Your task to perform on an android device: Open eBay Image 0: 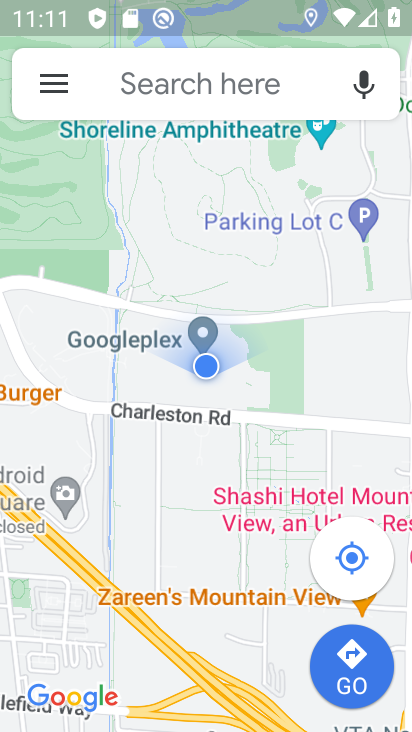
Step 0: press home button
Your task to perform on an android device: Open eBay Image 1: 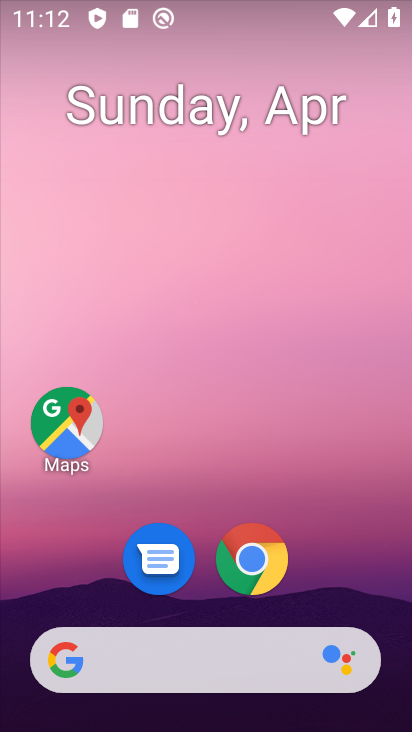
Step 1: click (267, 570)
Your task to perform on an android device: Open eBay Image 2: 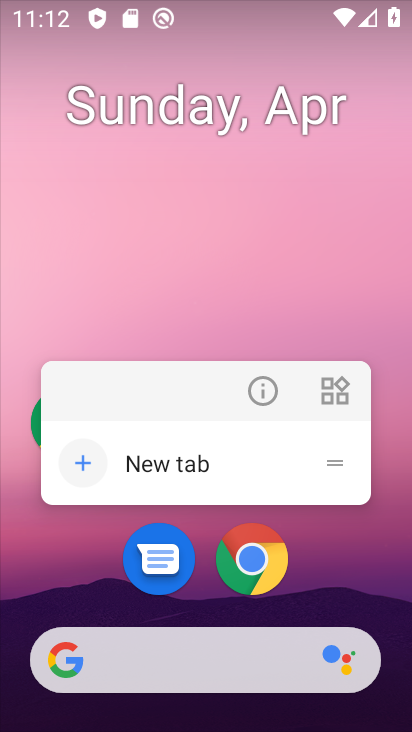
Step 2: click (375, 517)
Your task to perform on an android device: Open eBay Image 3: 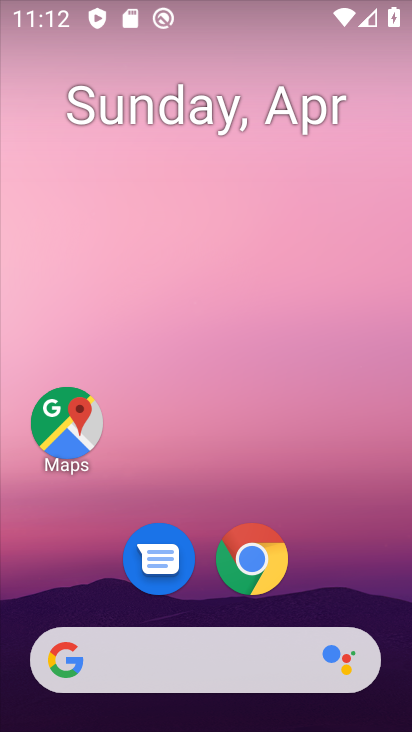
Step 3: click (249, 561)
Your task to perform on an android device: Open eBay Image 4: 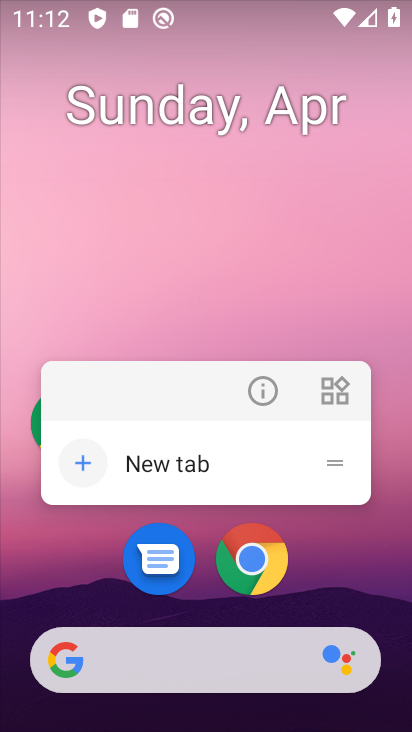
Step 4: click (284, 552)
Your task to perform on an android device: Open eBay Image 5: 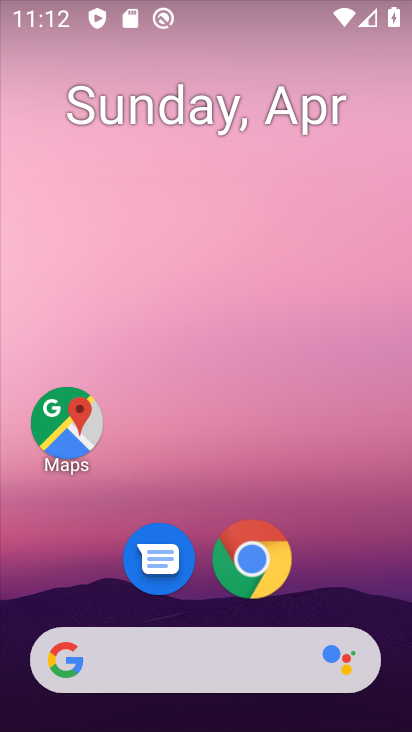
Step 5: click (284, 552)
Your task to perform on an android device: Open eBay Image 6: 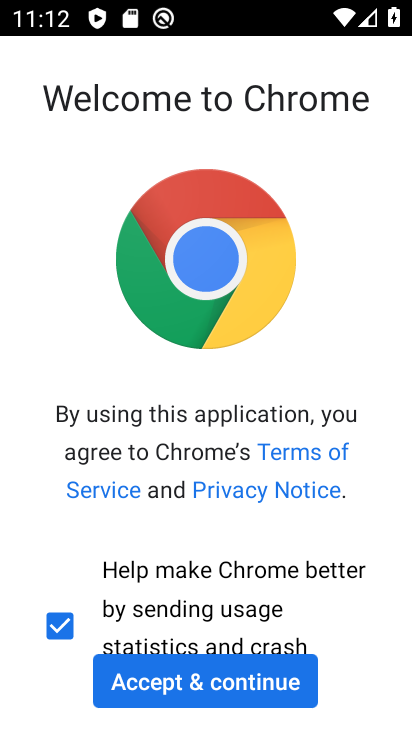
Step 6: click (269, 682)
Your task to perform on an android device: Open eBay Image 7: 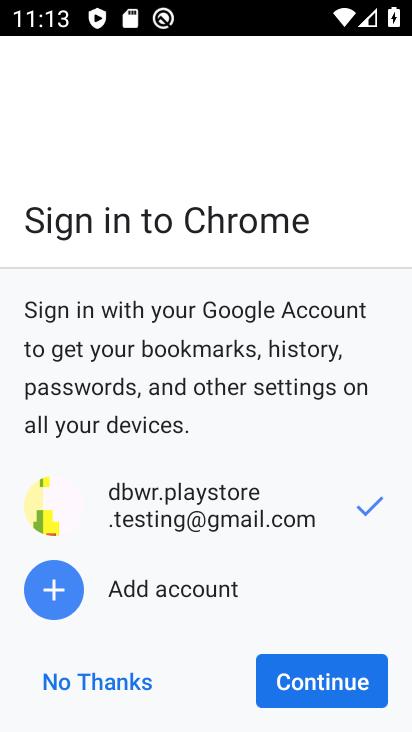
Step 7: click (286, 675)
Your task to perform on an android device: Open eBay Image 8: 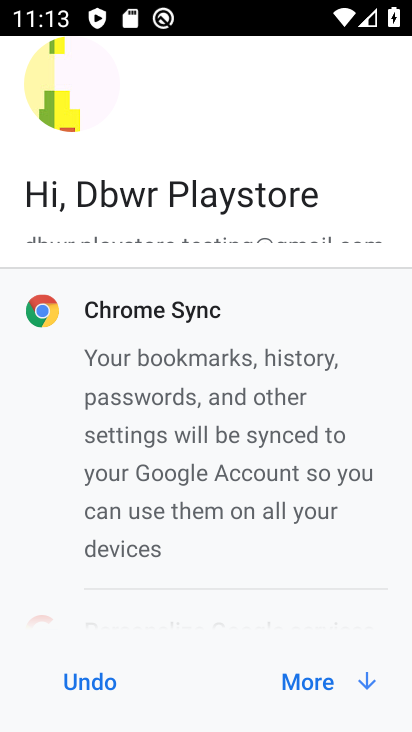
Step 8: click (326, 680)
Your task to perform on an android device: Open eBay Image 9: 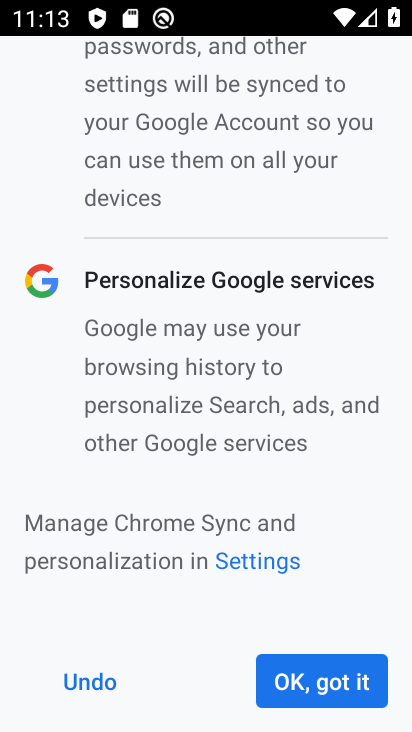
Step 9: click (326, 680)
Your task to perform on an android device: Open eBay Image 10: 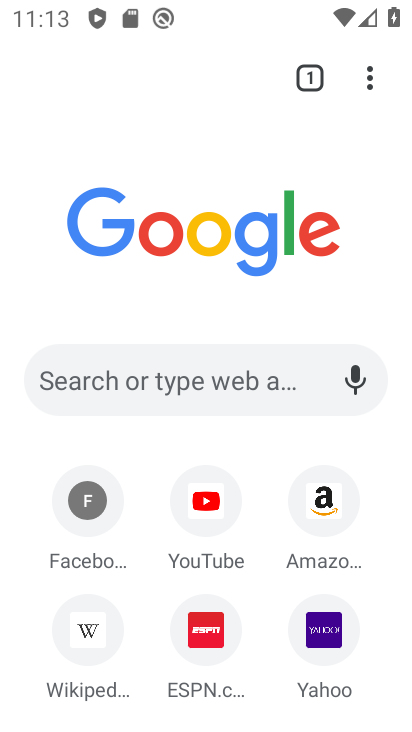
Step 10: click (191, 378)
Your task to perform on an android device: Open eBay Image 11: 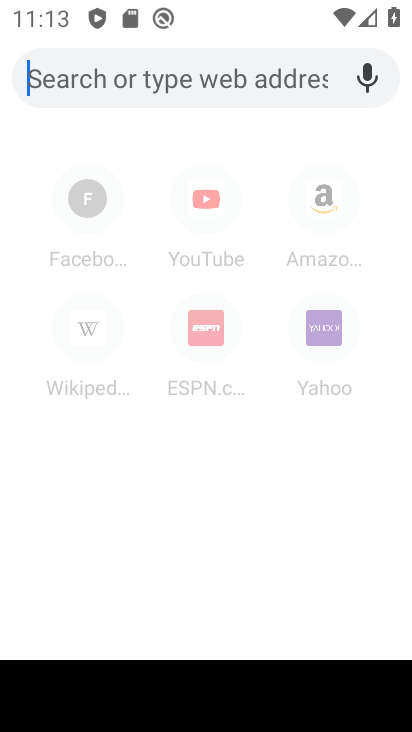
Step 11: click (171, 77)
Your task to perform on an android device: Open eBay Image 12: 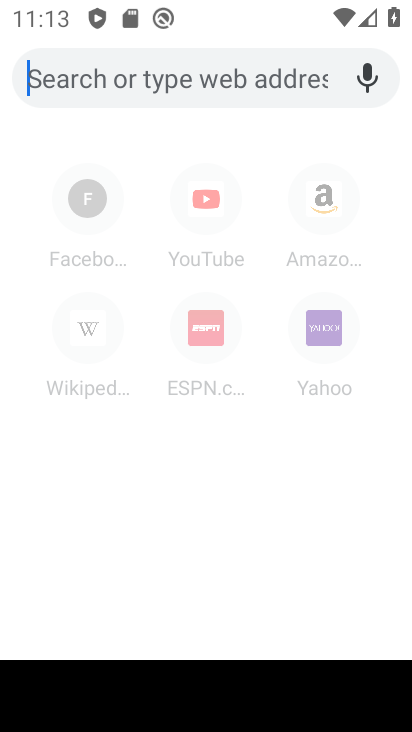
Step 12: click (102, 73)
Your task to perform on an android device: Open eBay Image 13: 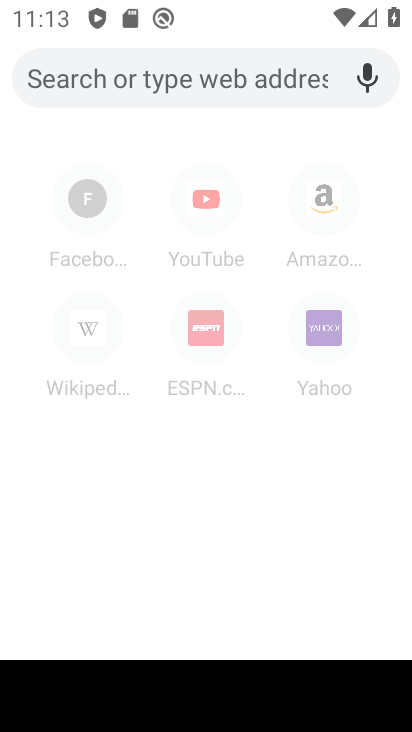
Step 13: type "eBay"
Your task to perform on an android device: Open eBay Image 14: 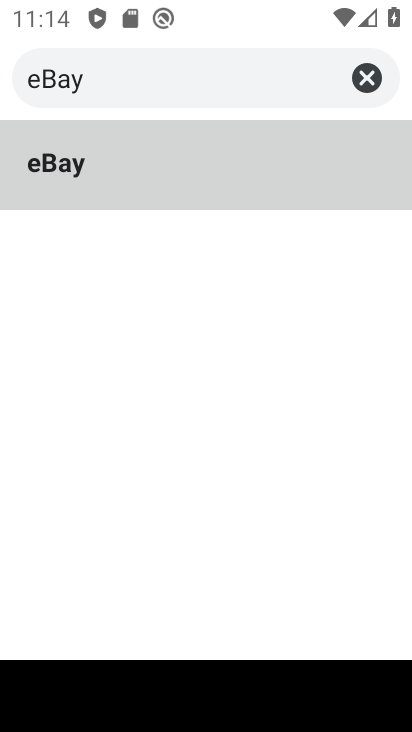
Step 14: click (32, 156)
Your task to perform on an android device: Open eBay Image 15: 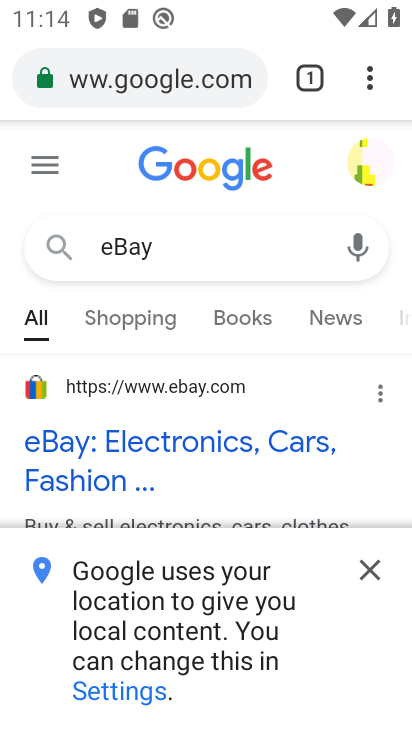
Step 15: task complete